Your task to perform on an android device: turn on data saver in the chrome app Image 0: 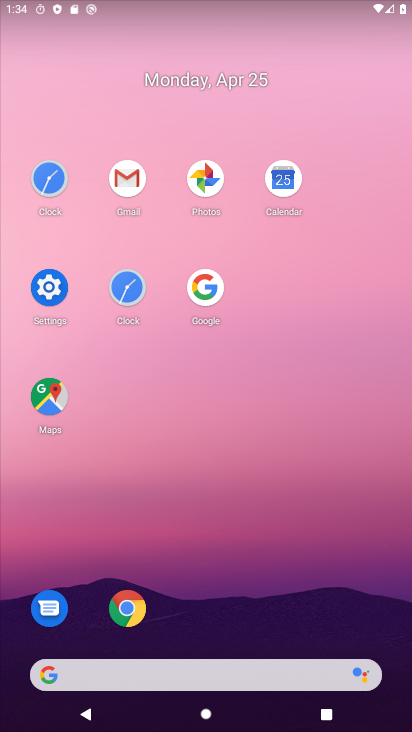
Step 0: click (135, 598)
Your task to perform on an android device: turn on data saver in the chrome app Image 1: 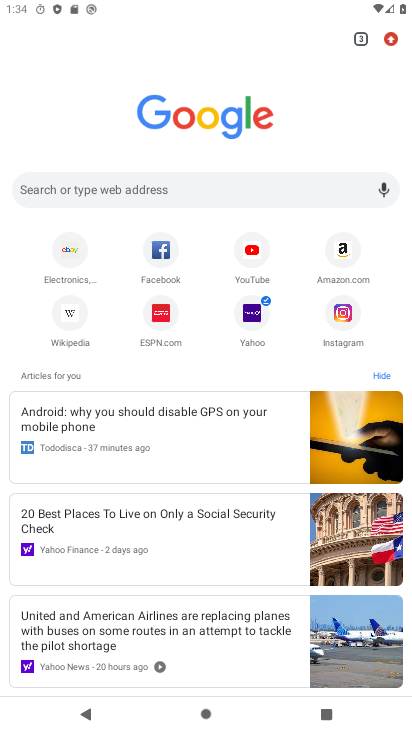
Step 1: click (399, 42)
Your task to perform on an android device: turn on data saver in the chrome app Image 2: 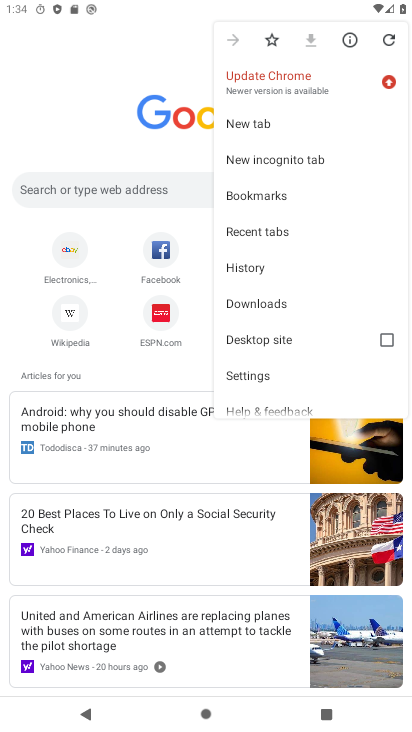
Step 2: click (233, 369)
Your task to perform on an android device: turn on data saver in the chrome app Image 3: 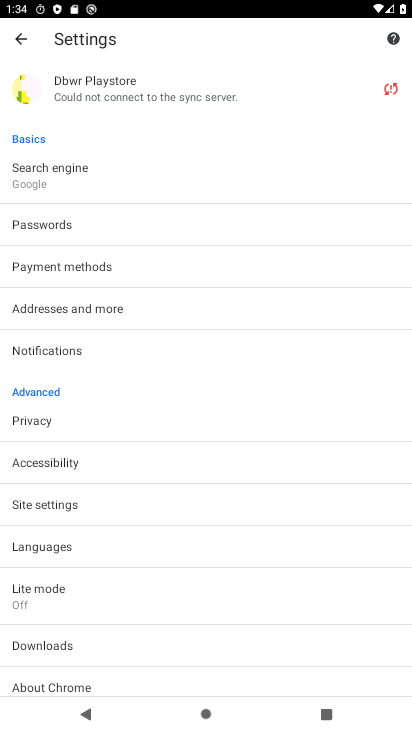
Step 3: click (134, 577)
Your task to perform on an android device: turn on data saver in the chrome app Image 4: 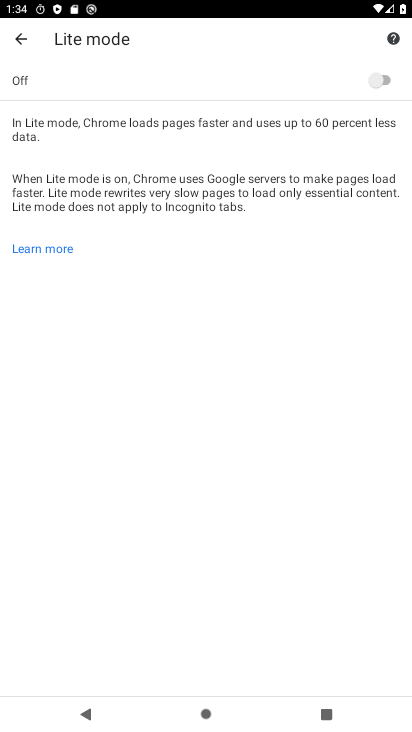
Step 4: click (380, 80)
Your task to perform on an android device: turn on data saver in the chrome app Image 5: 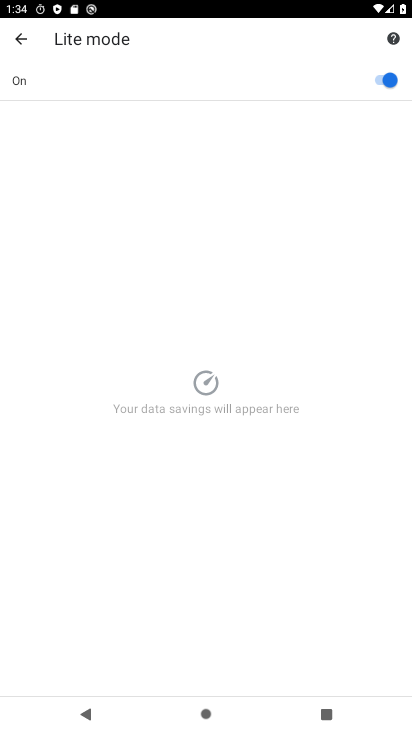
Step 5: task complete